Your task to perform on an android device: Add asus rog to the cart on ebay.com, then select checkout. Image 0: 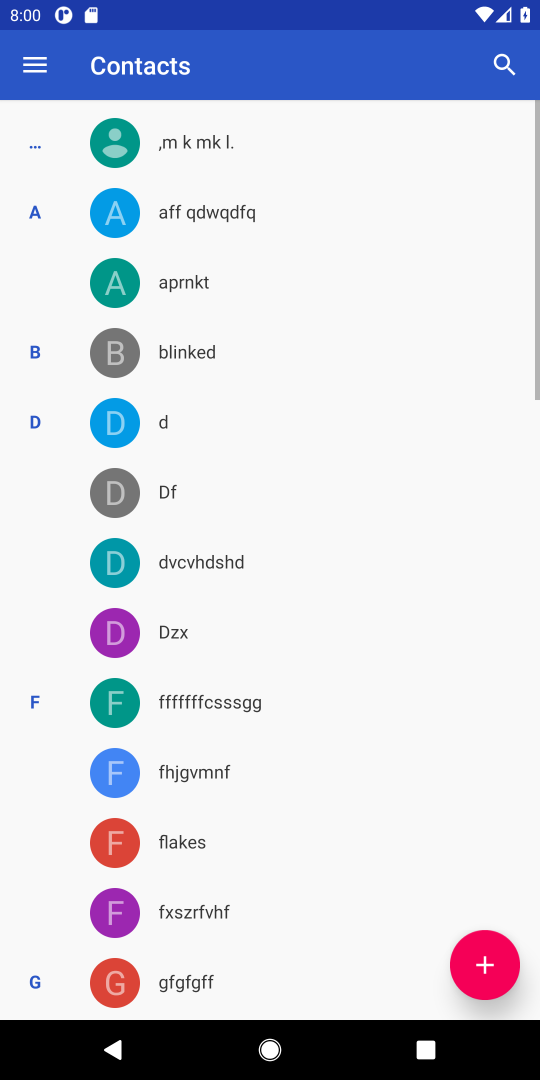
Step 0: press home button
Your task to perform on an android device: Add asus rog to the cart on ebay.com, then select checkout. Image 1: 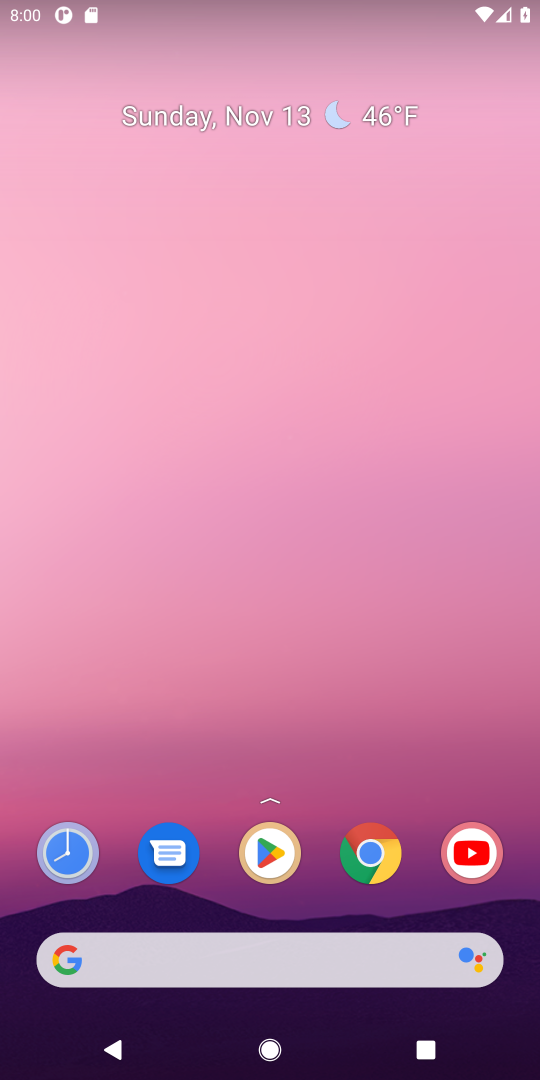
Step 1: click (103, 962)
Your task to perform on an android device: Add asus rog to the cart on ebay.com, then select checkout. Image 2: 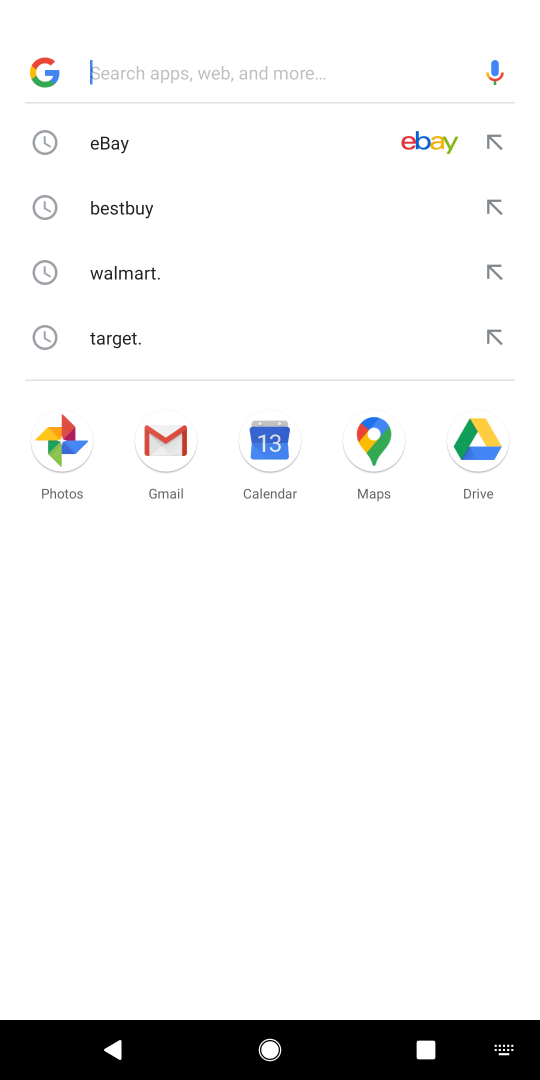
Step 2: type "ebay.com"
Your task to perform on an android device: Add asus rog to the cart on ebay.com, then select checkout. Image 3: 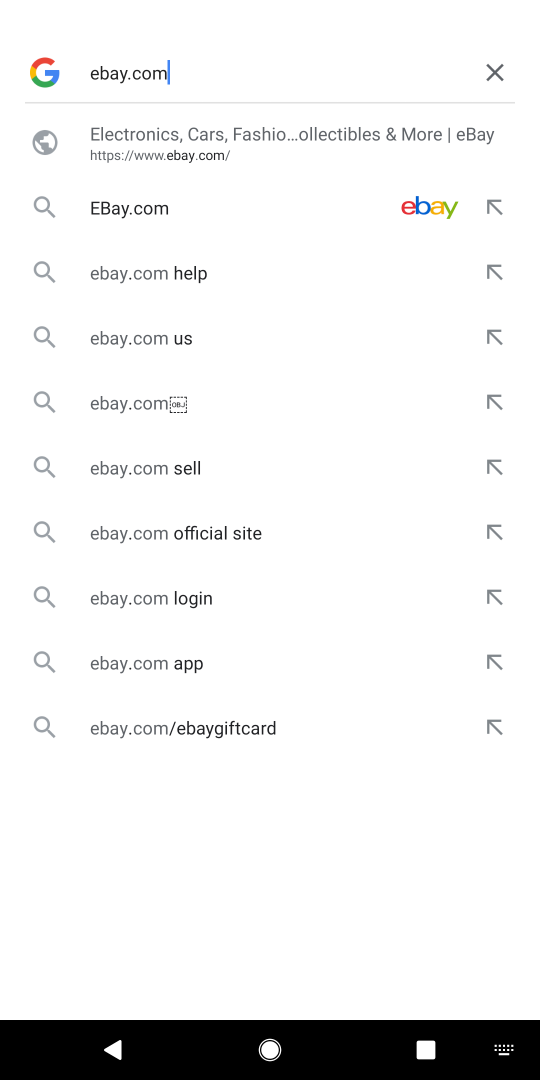
Step 3: press enter
Your task to perform on an android device: Add asus rog to the cart on ebay.com, then select checkout. Image 4: 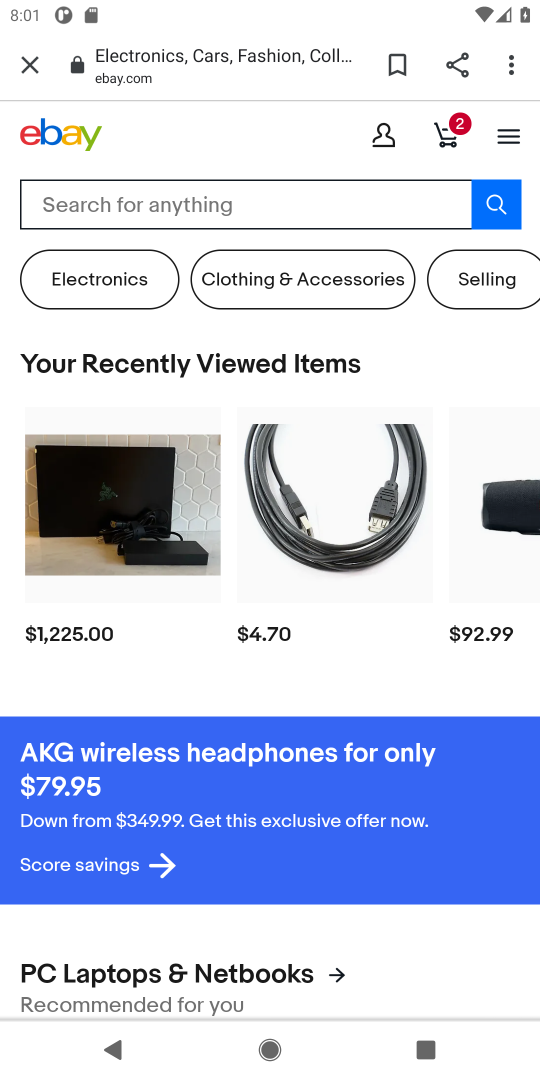
Step 4: click (111, 203)
Your task to perform on an android device: Add asus rog to the cart on ebay.com, then select checkout. Image 5: 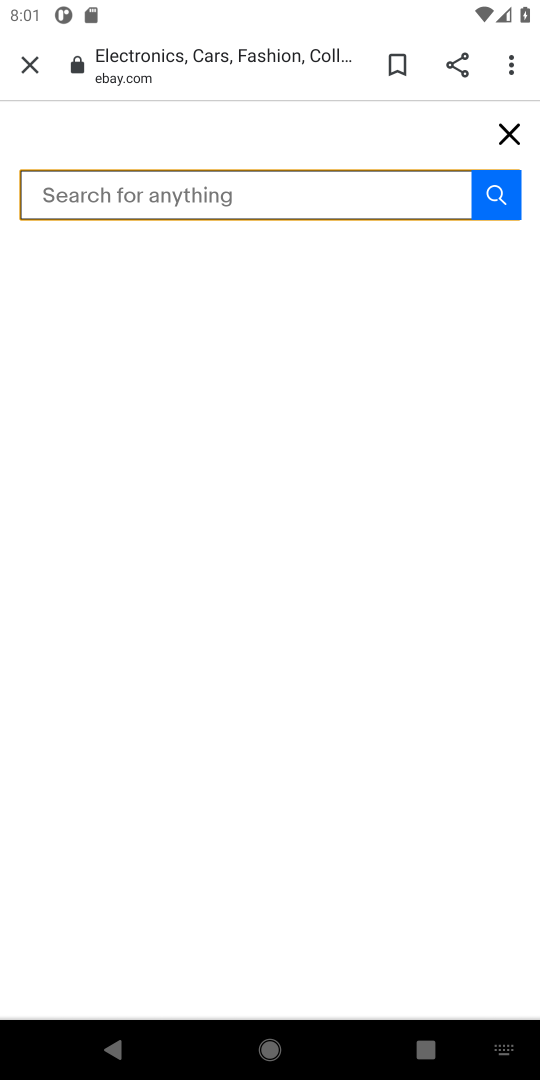
Step 5: type "asus rog"
Your task to perform on an android device: Add asus rog to the cart on ebay.com, then select checkout. Image 6: 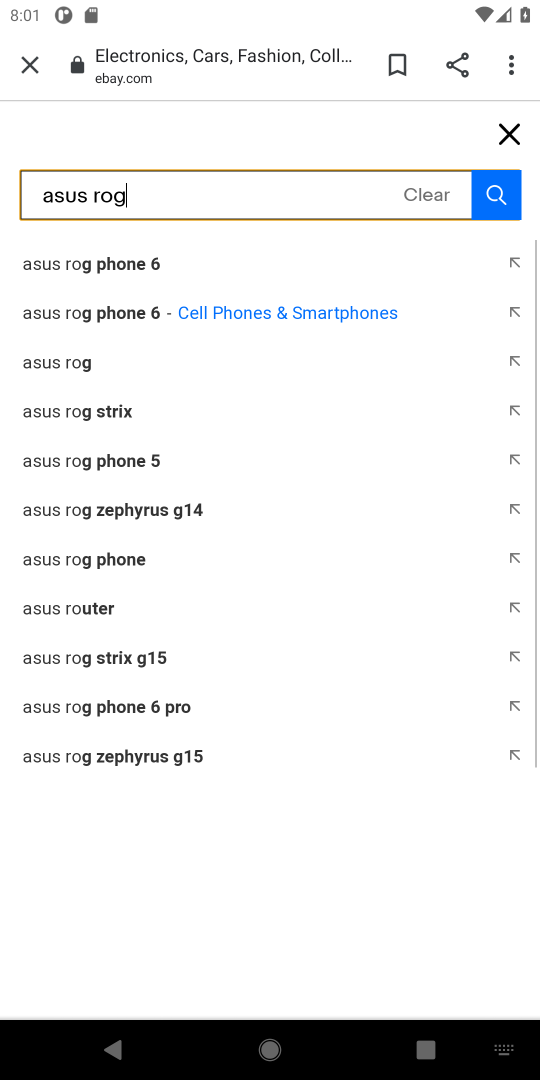
Step 6: press enter
Your task to perform on an android device: Add asus rog to the cart on ebay.com, then select checkout. Image 7: 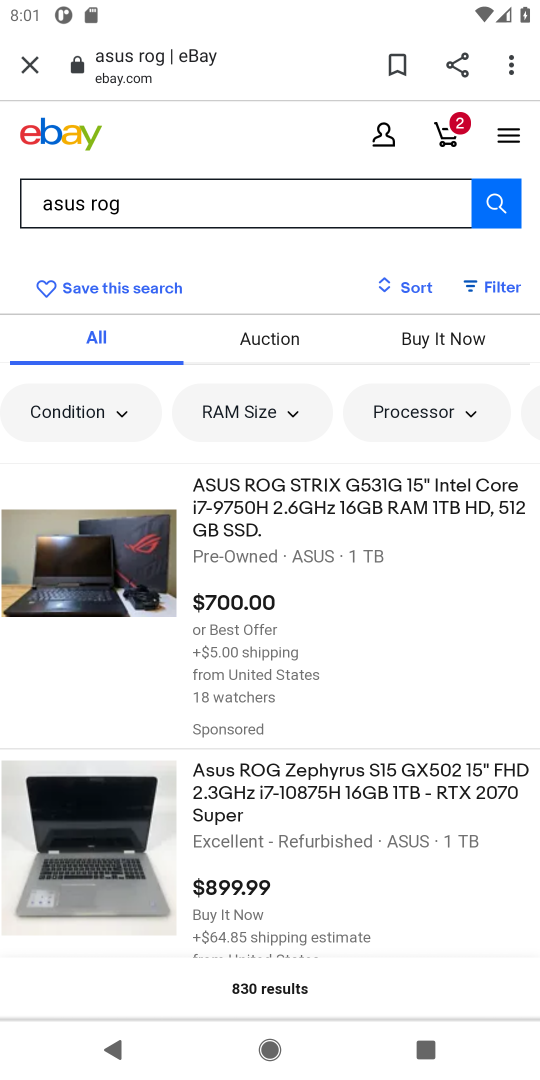
Step 7: click (321, 501)
Your task to perform on an android device: Add asus rog to the cart on ebay.com, then select checkout. Image 8: 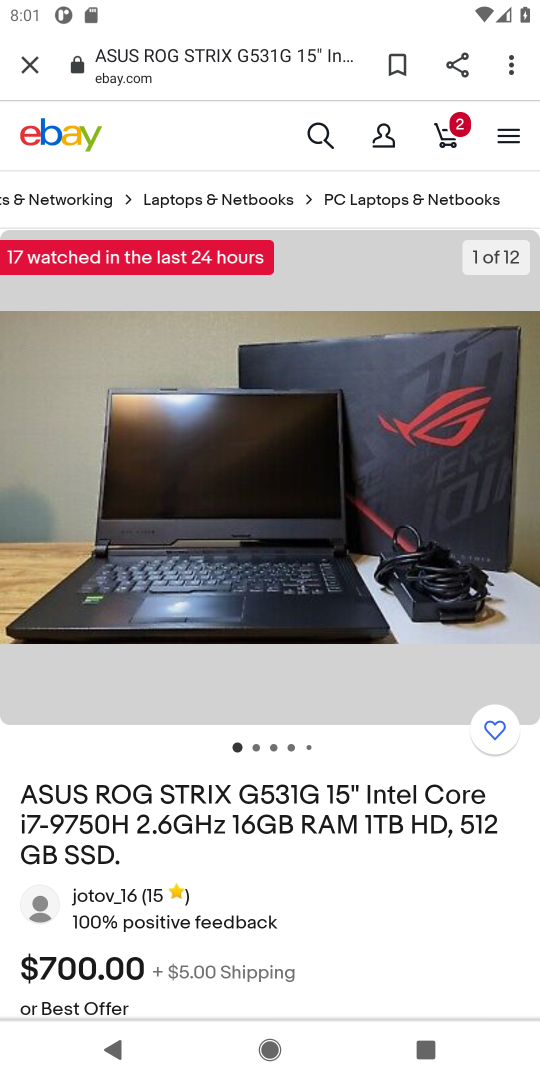
Step 8: drag from (273, 909) to (303, 424)
Your task to perform on an android device: Add asus rog to the cart on ebay.com, then select checkout. Image 9: 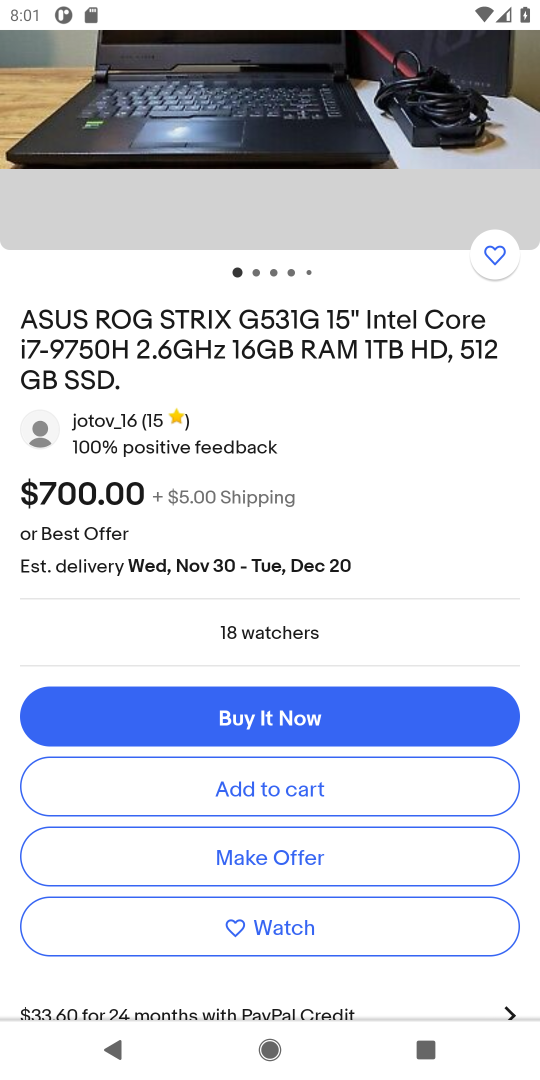
Step 9: drag from (355, 881) to (412, 370)
Your task to perform on an android device: Add asus rog to the cart on ebay.com, then select checkout. Image 10: 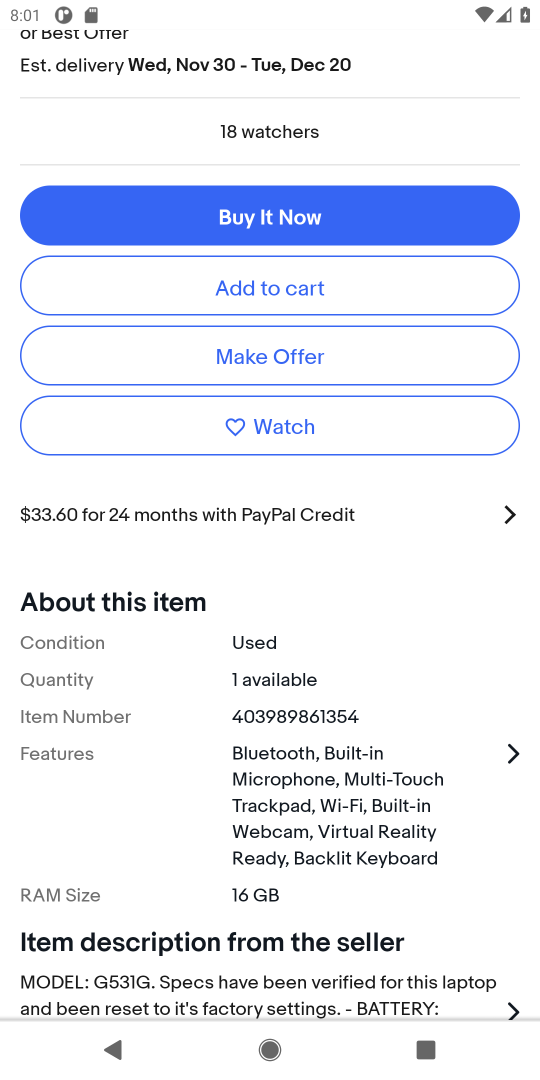
Step 10: click (238, 288)
Your task to perform on an android device: Add asus rog to the cart on ebay.com, then select checkout. Image 11: 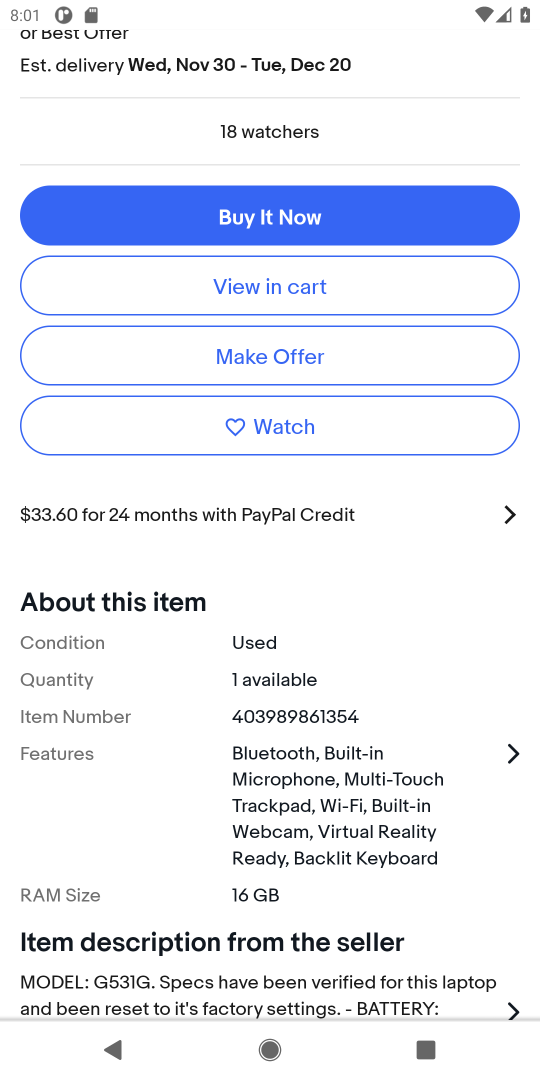
Step 11: click (264, 289)
Your task to perform on an android device: Add asus rog to the cart on ebay.com, then select checkout. Image 12: 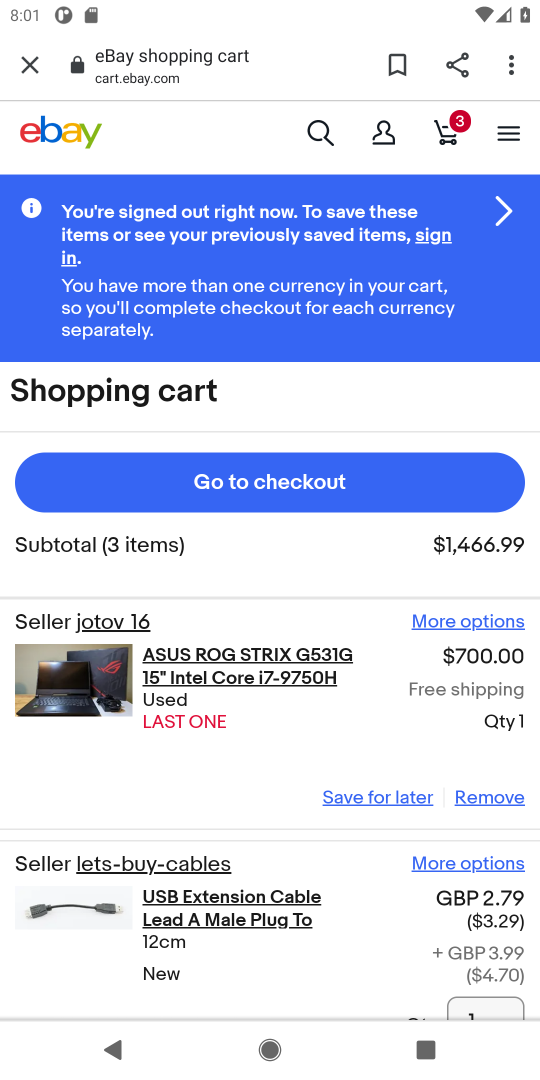
Step 12: click (286, 481)
Your task to perform on an android device: Add asus rog to the cart on ebay.com, then select checkout. Image 13: 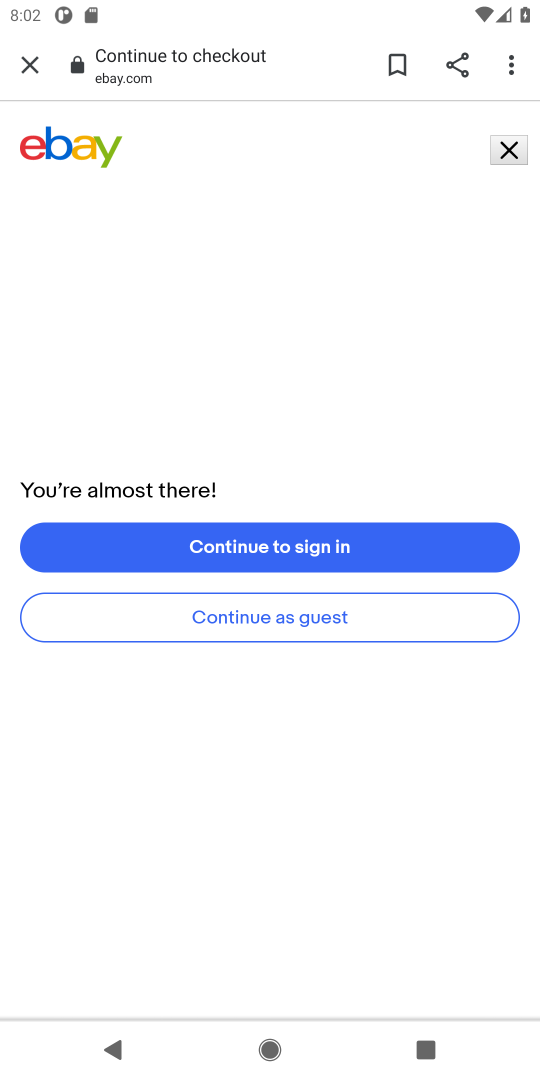
Step 13: task complete